Your task to perform on an android device: toggle wifi Image 0: 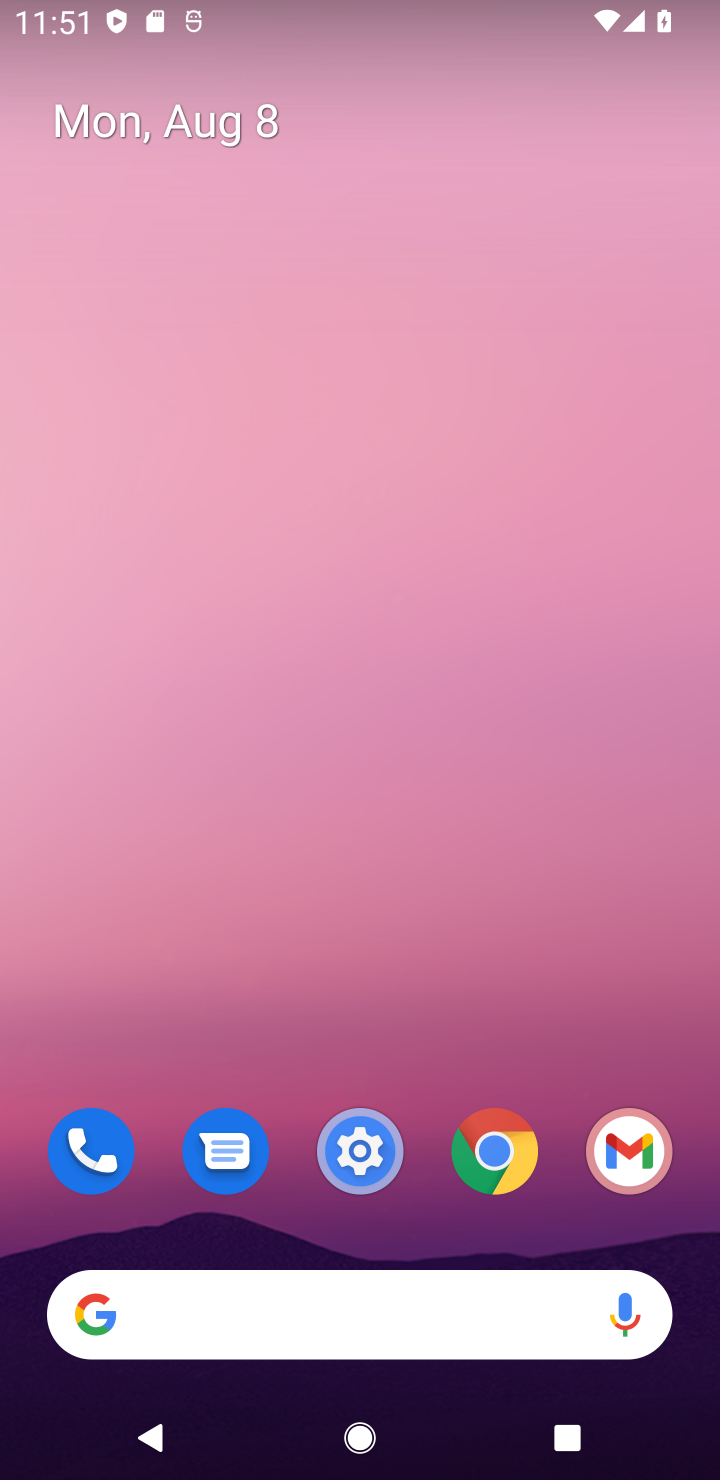
Step 0: click (358, 1138)
Your task to perform on an android device: toggle wifi Image 1: 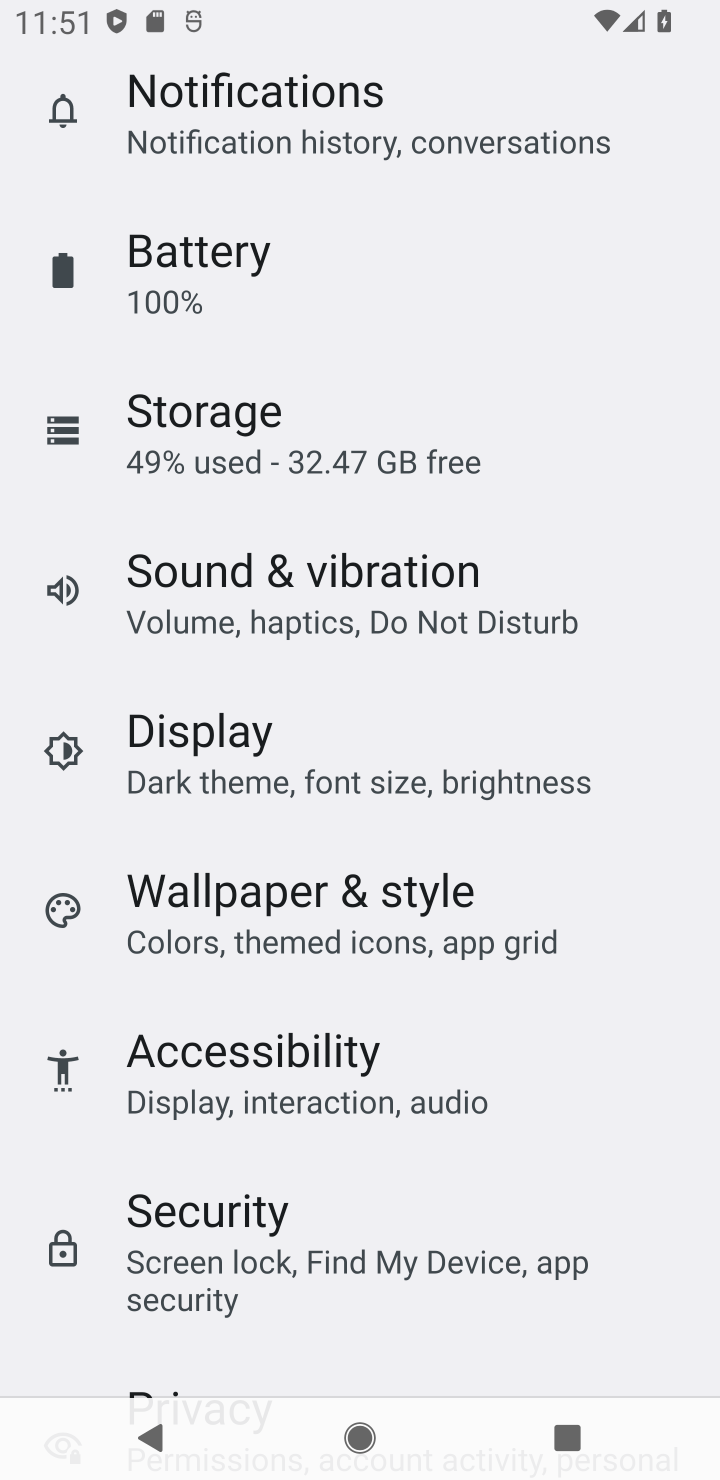
Step 1: drag from (335, 181) to (395, 1060)
Your task to perform on an android device: toggle wifi Image 2: 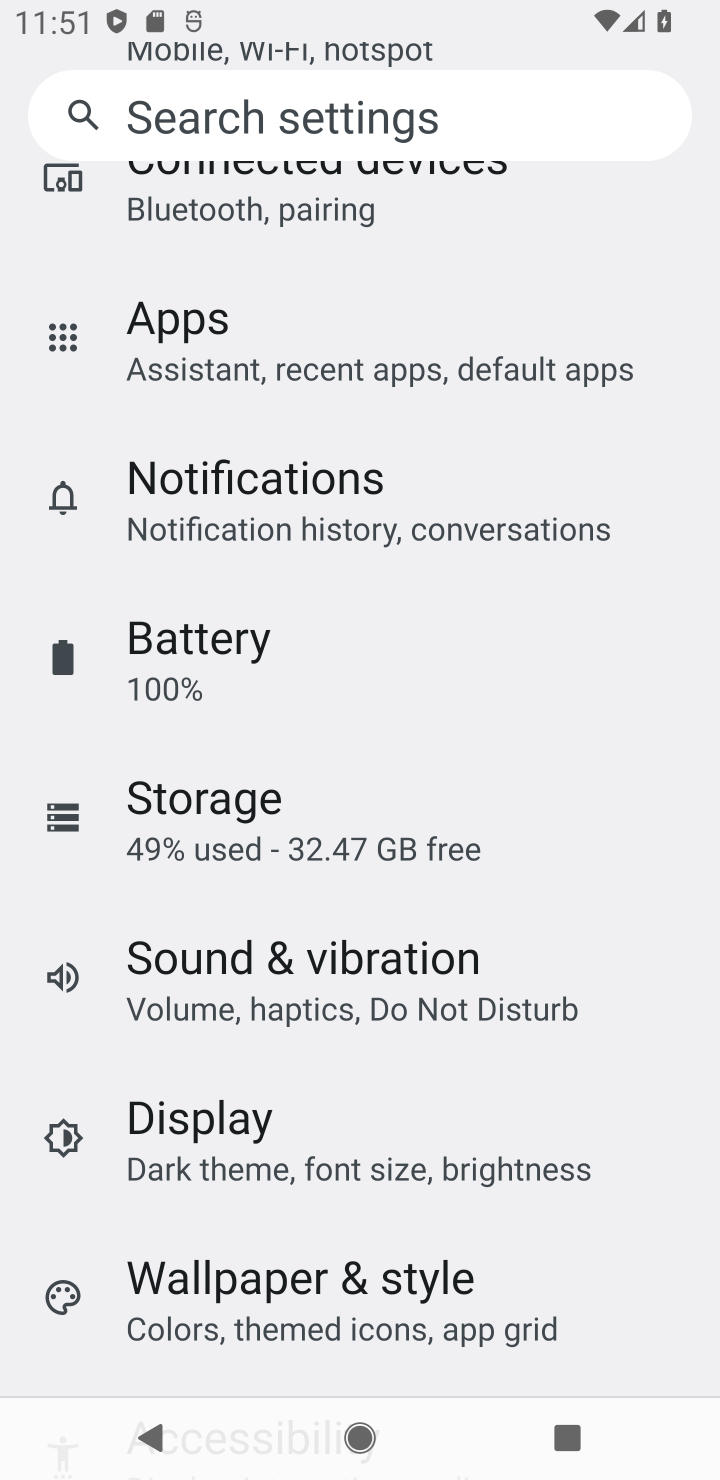
Step 2: drag from (369, 135) to (486, 1075)
Your task to perform on an android device: toggle wifi Image 3: 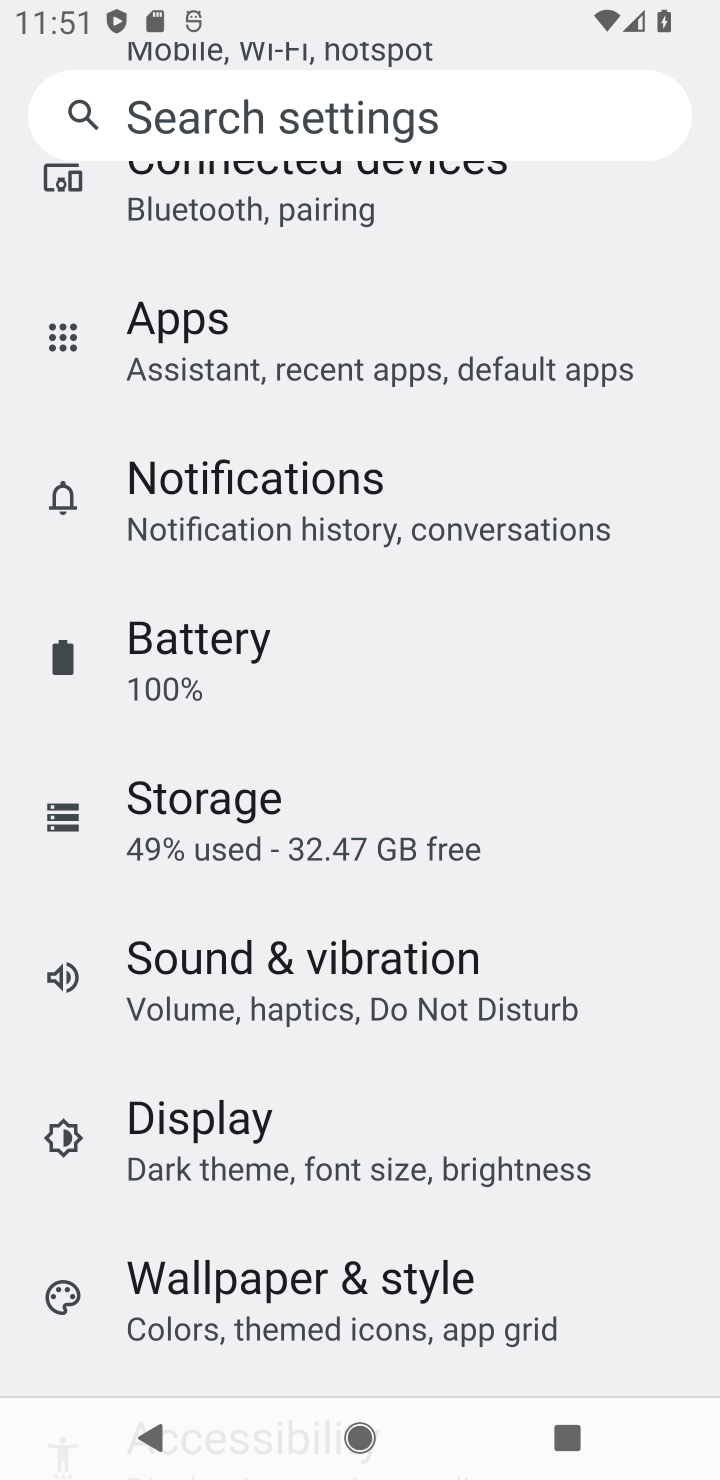
Step 3: drag from (336, 207) to (473, 1069)
Your task to perform on an android device: toggle wifi Image 4: 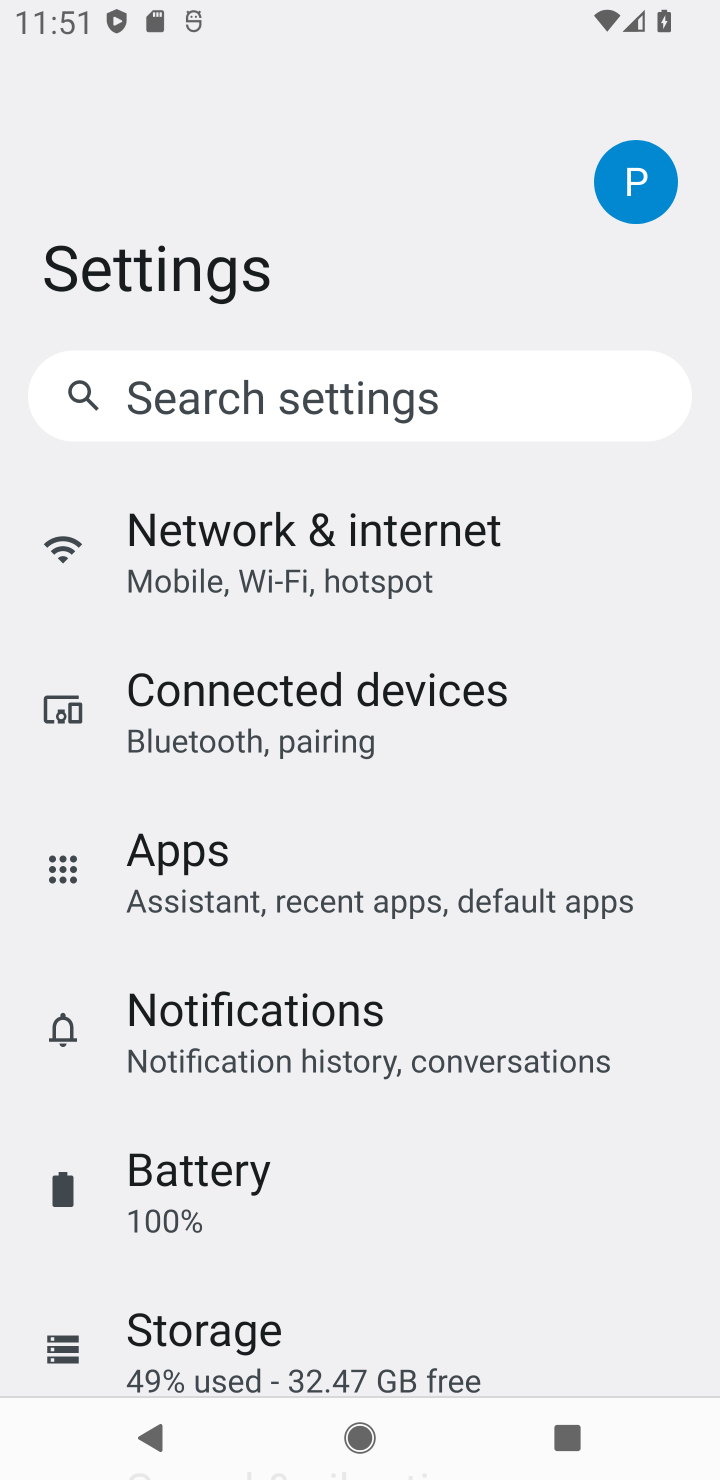
Step 4: click (281, 554)
Your task to perform on an android device: toggle wifi Image 5: 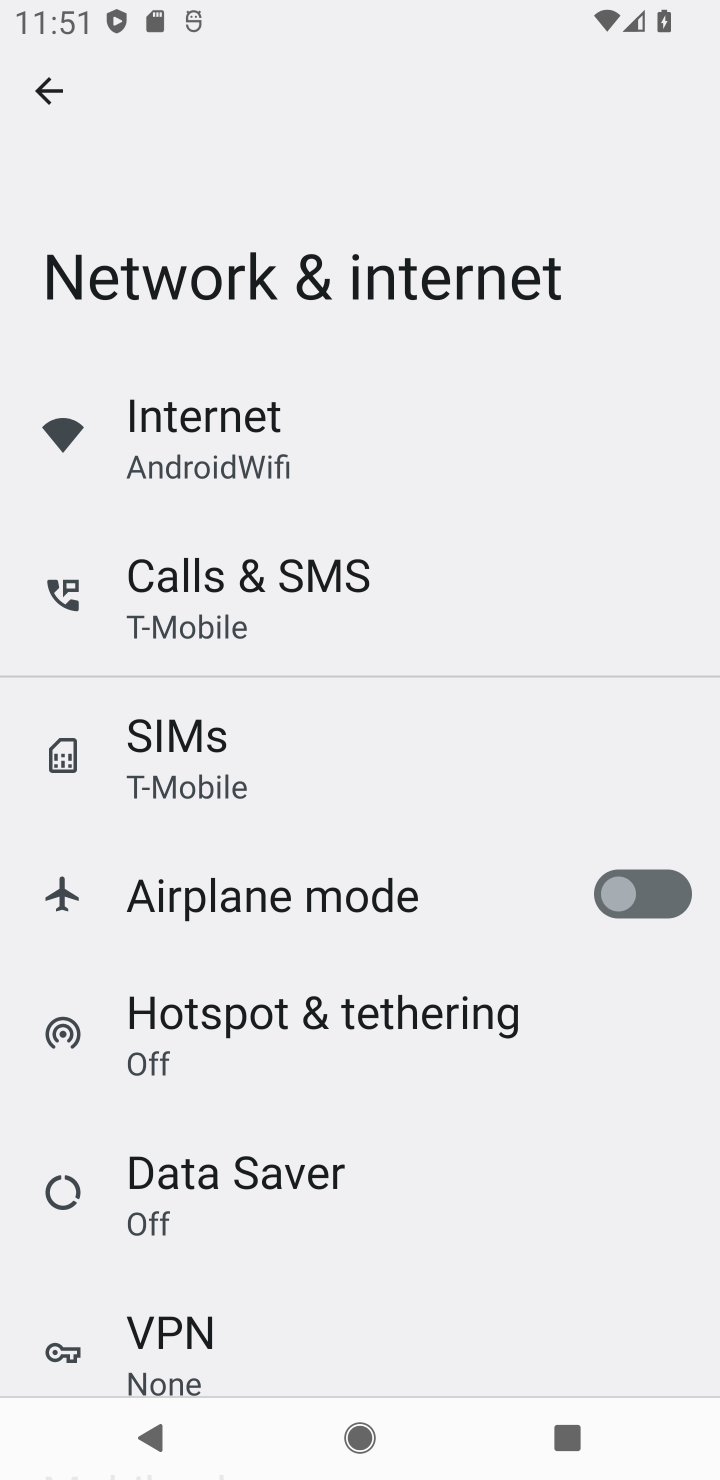
Step 5: click (236, 460)
Your task to perform on an android device: toggle wifi Image 6: 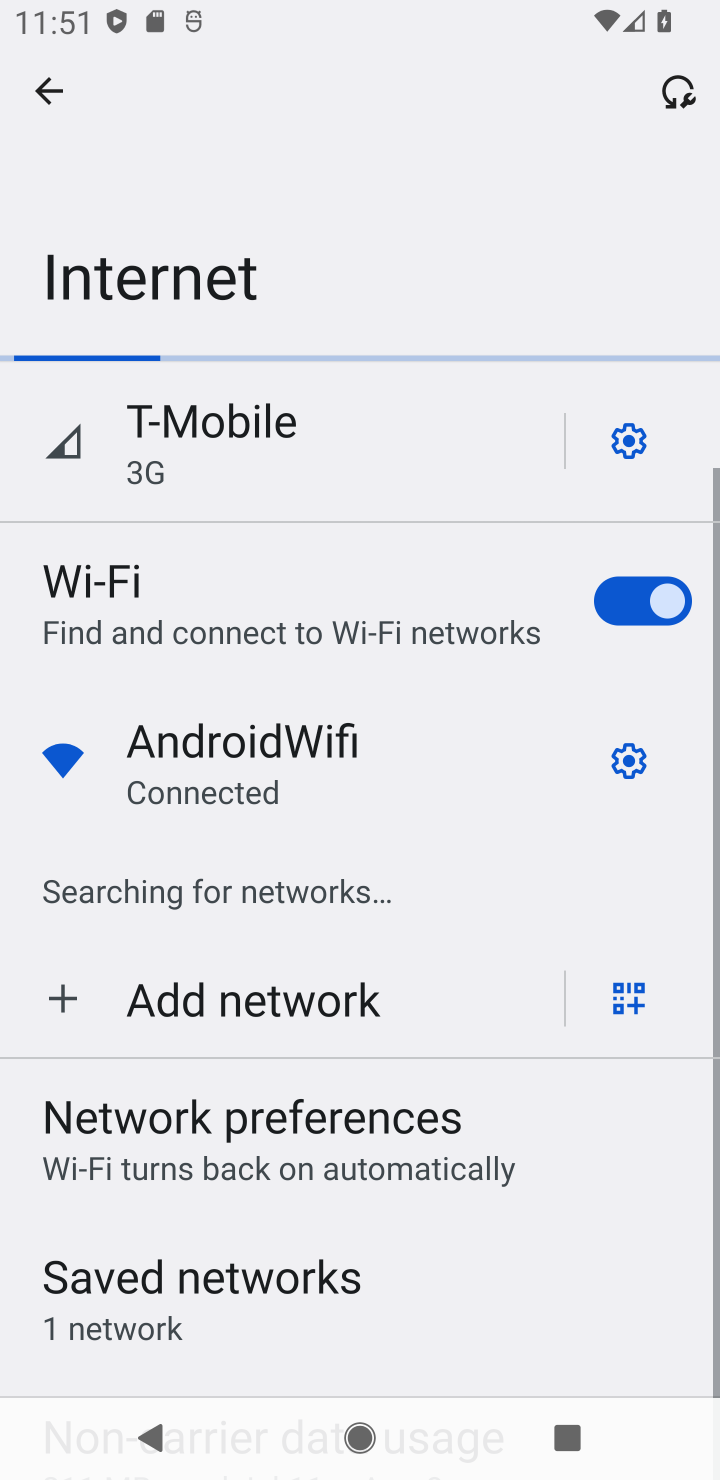
Step 6: click (618, 596)
Your task to perform on an android device: toggle wifi Image 7: 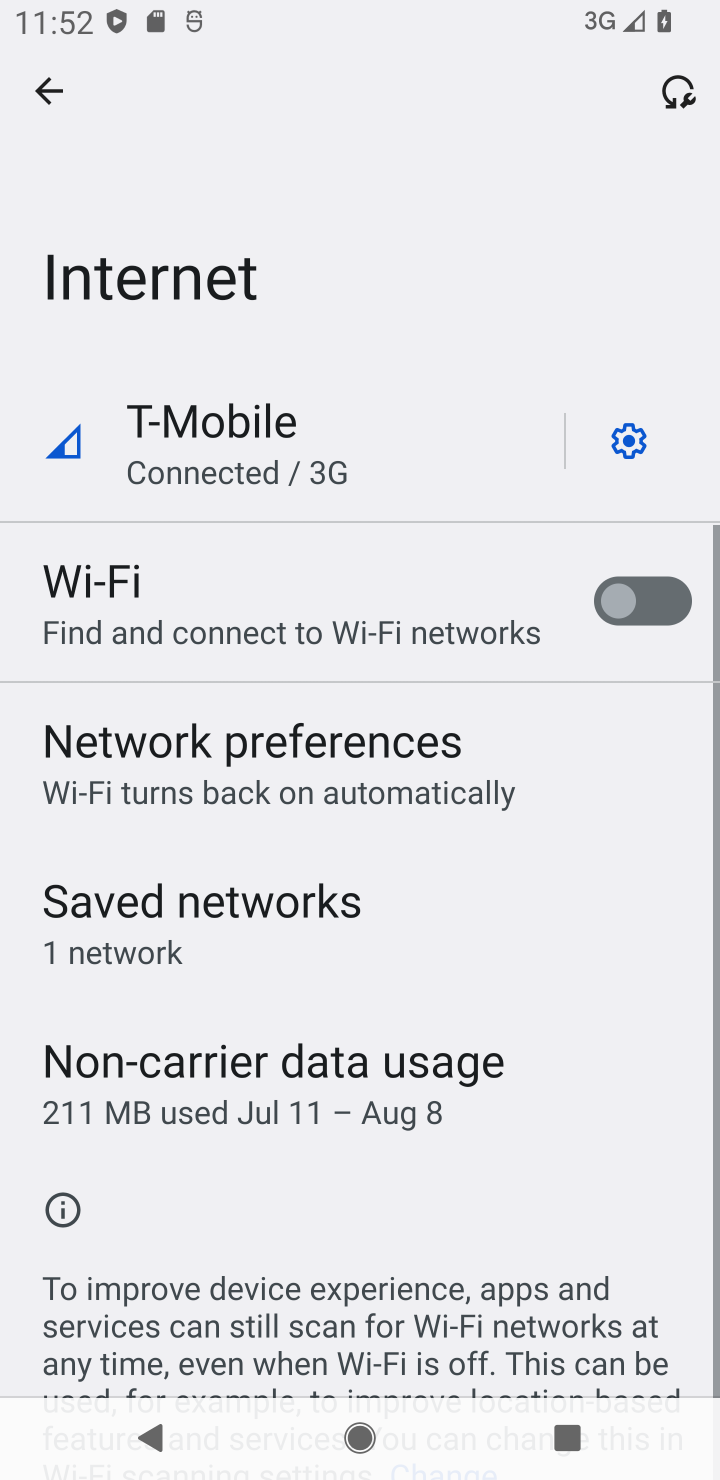
Step 7: task complete